Your task to perform on an android device: toggle airplane mode Image 0: 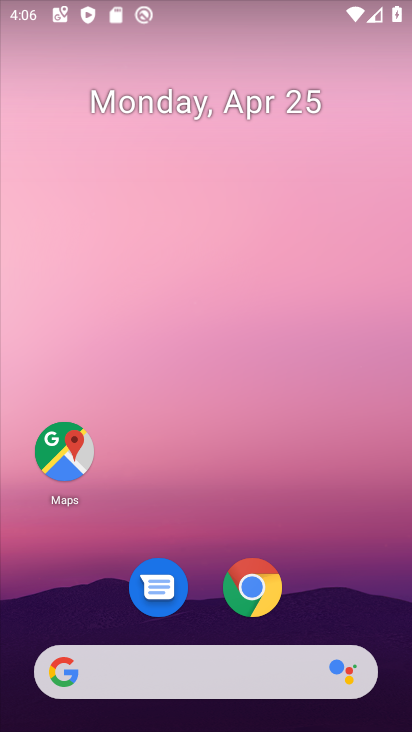
Step 0: drag from (344, 615) to (329, 13)
Your task to perform on an android device: toggle airplane mode Image 1: 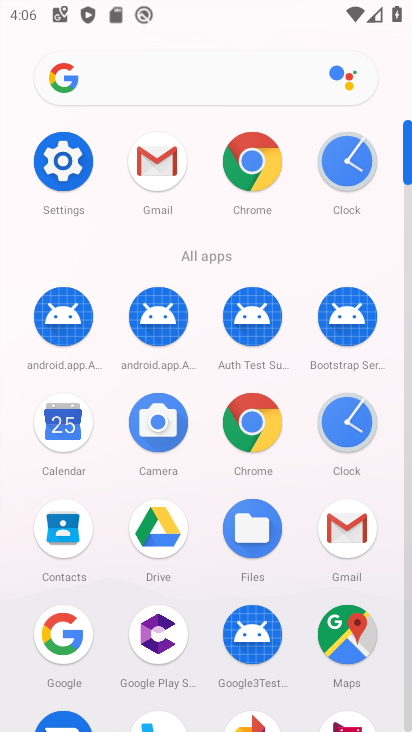
Step 1: click (60, 164)
Your task to perform on an android device: toggle airplane mode Image 2: 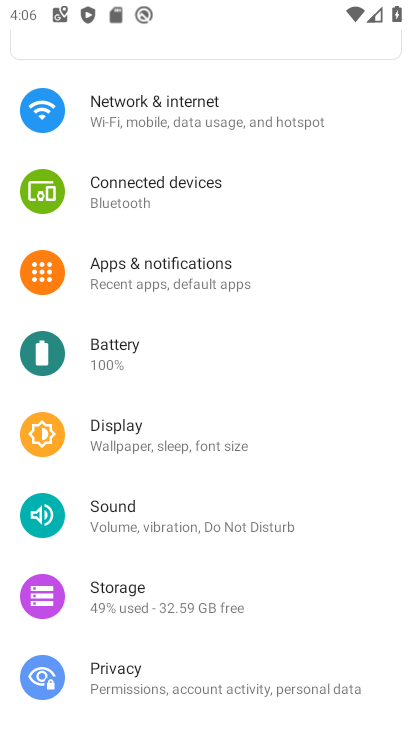
Step 2: click (165, 126)
Your task to perform on an android device: toggle airplane mode Image 3: 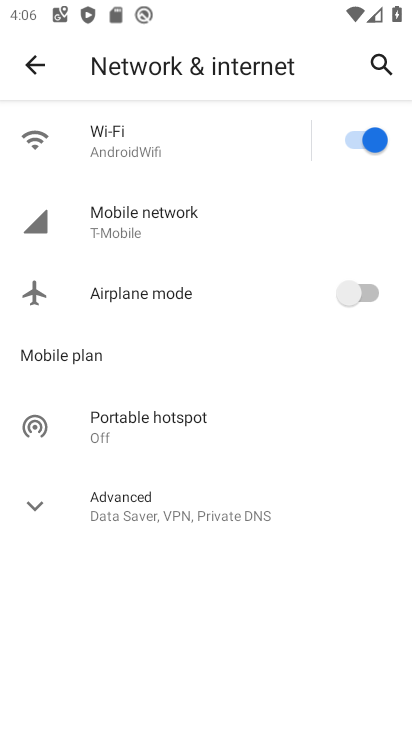
Step 3: click (353, 279)
Your task to perform on an android device: toggle airplane mode Image 4: 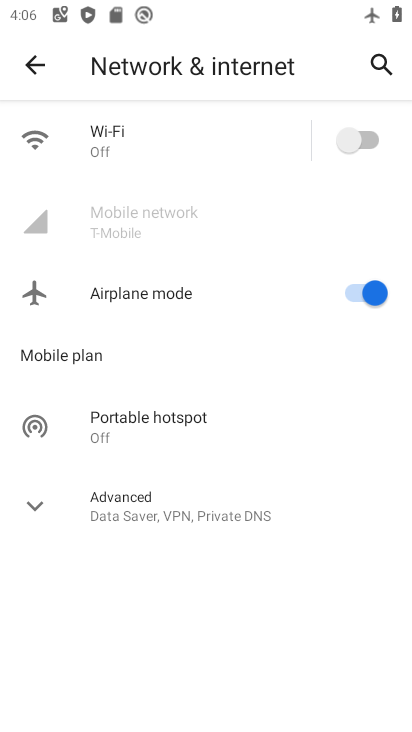
Step 4: task complete